Your task to perform on an android device: Show the shopping cart on amazon.com. Add bose soundlink to the cart on amazon.com, then select checkout. Image 0: 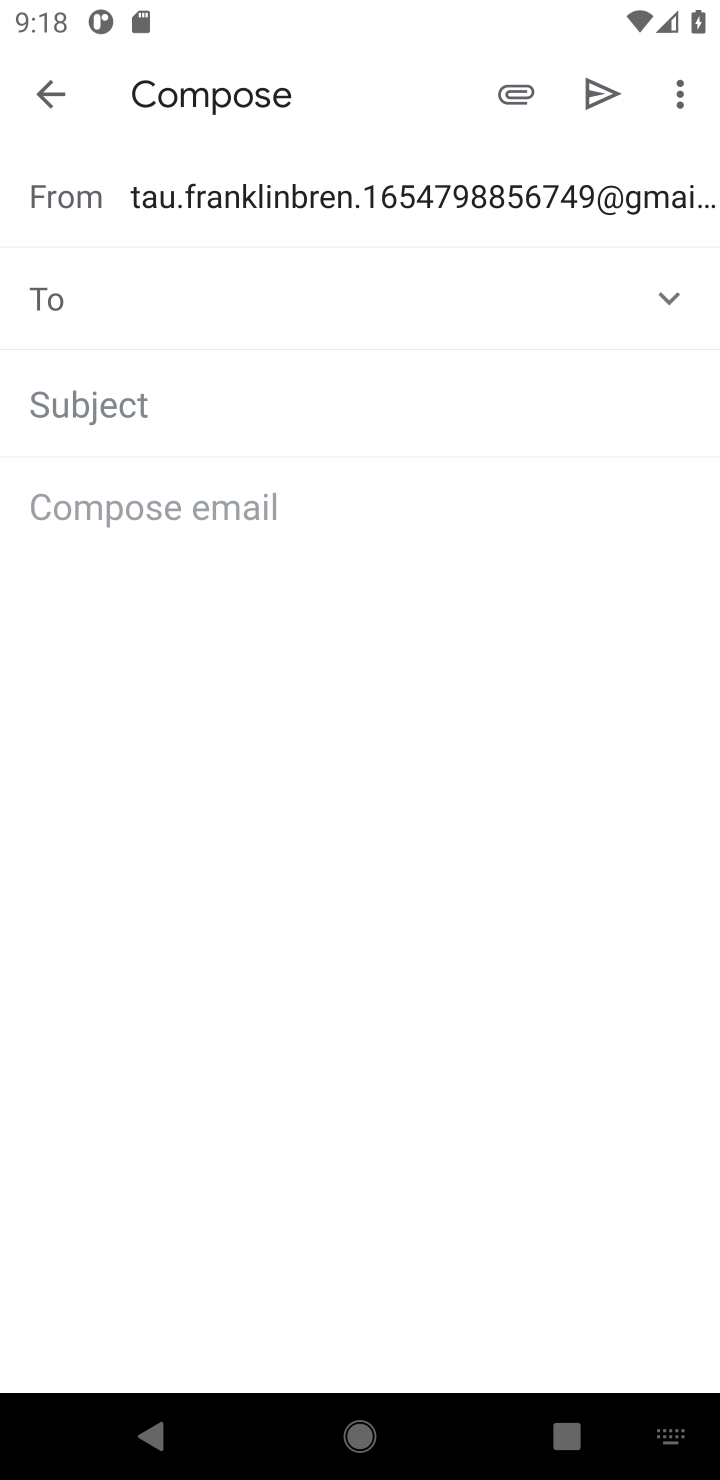
Step 0: press home button
Your task to perform on an android device: Show the shopping cart on amazon.com. Add bose soundlink to the cart on amazon.com, then select checkout. Image 1: 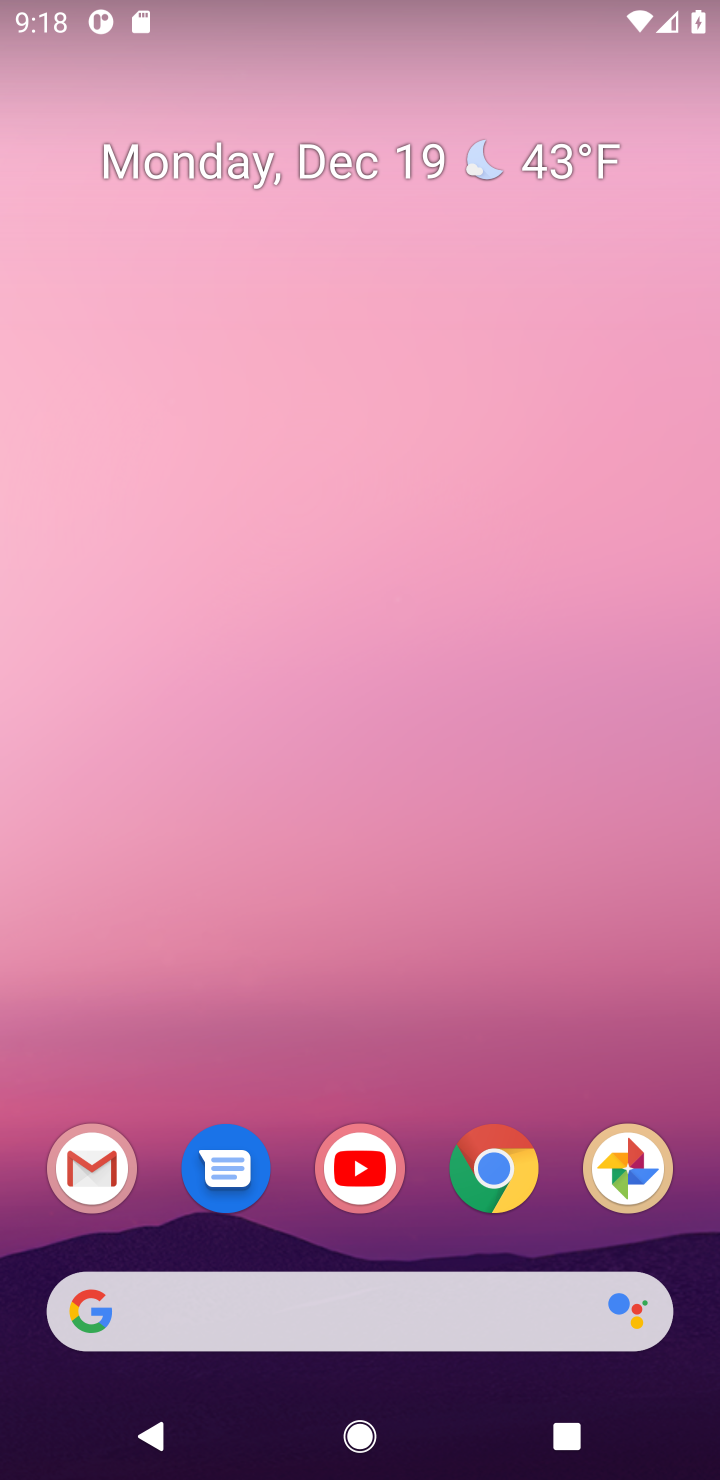
Step 1: click (499, 1182)
Your task to perform on an android device: Show the shopping cart on amazon.com. Add bose soundlink to the cart on amazon.com, then select checkout. Image 2: 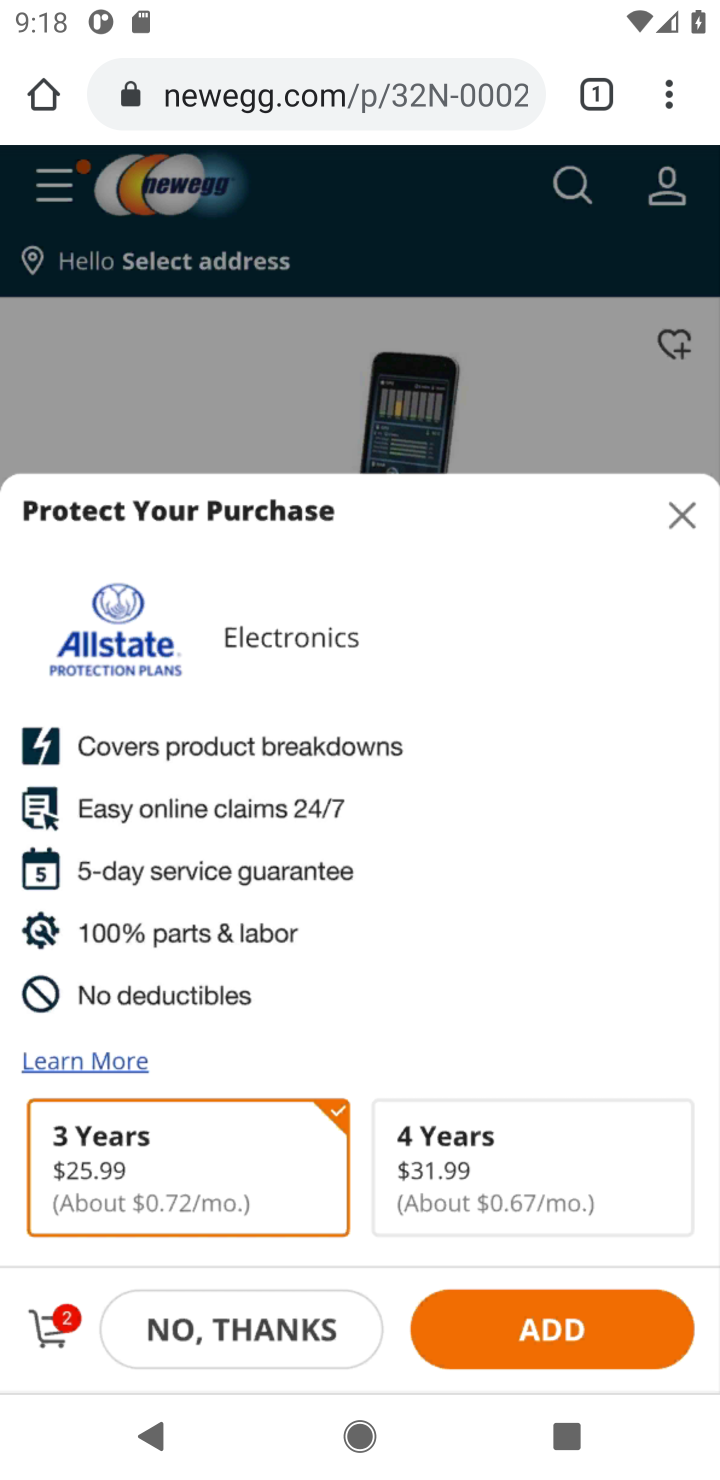
Step 2: click (257, 112)
Your task to perform on an android device: Show the shopping cart on amazon.com. Add bose soundlink to the cart on amazon.com, then select checkout. Image 3: 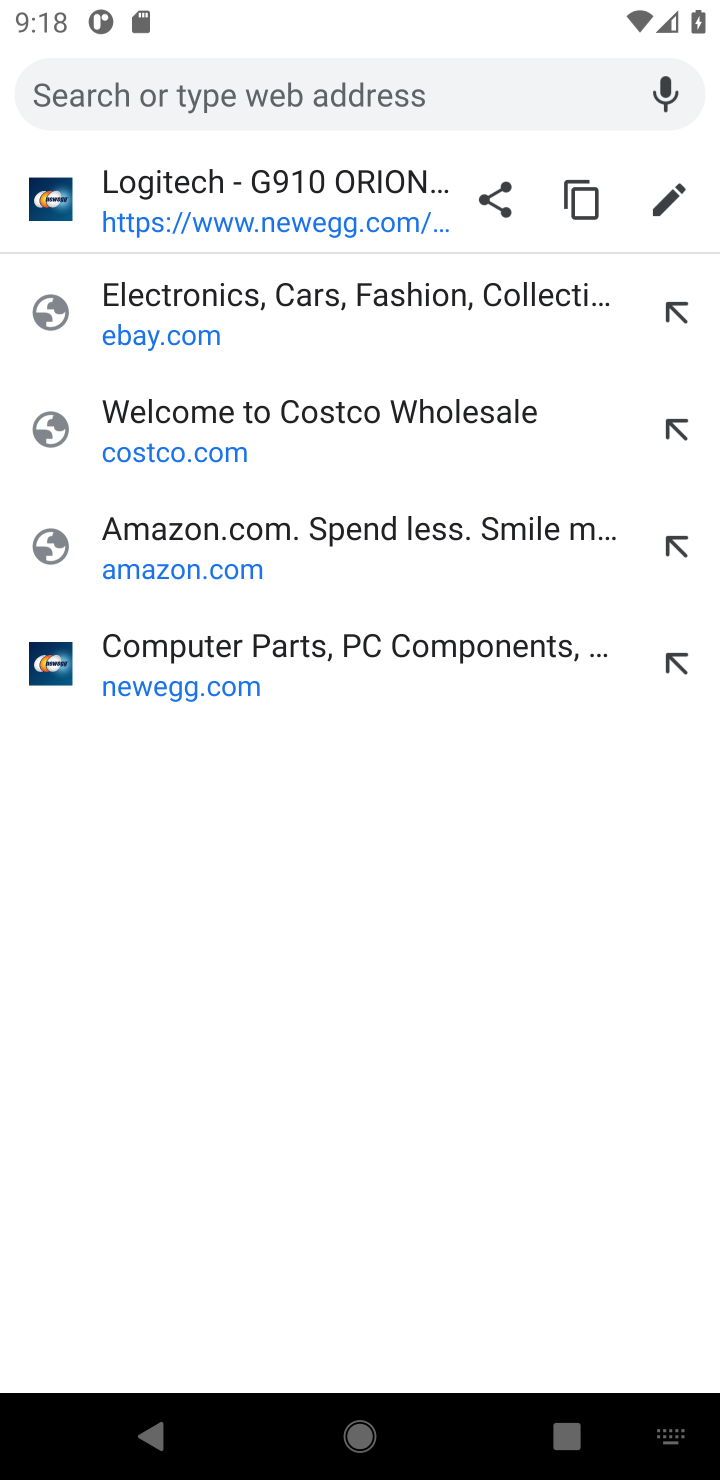
Step 3: click (161, 542)
Your task to perform on an android device: Show the shopping cart on amazon.com. Add bose soundlink to the cart on amazon.com, then select checkout. Image 4: 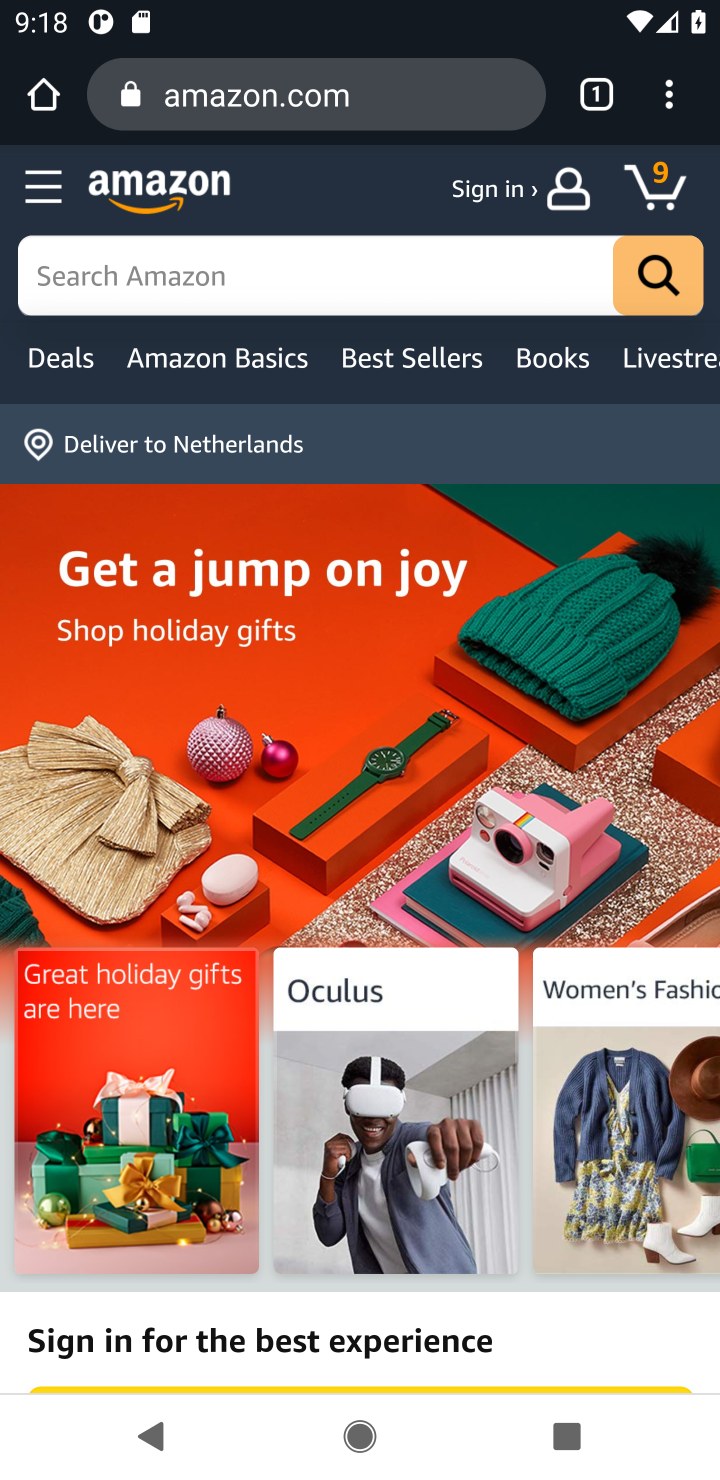
Step 4: click (654, 189)
Your task to perform on an android device: Show the shopping cart on amazon.com. Add bose soundlink to the cart on amazon.com, then select checkout. Image 5: 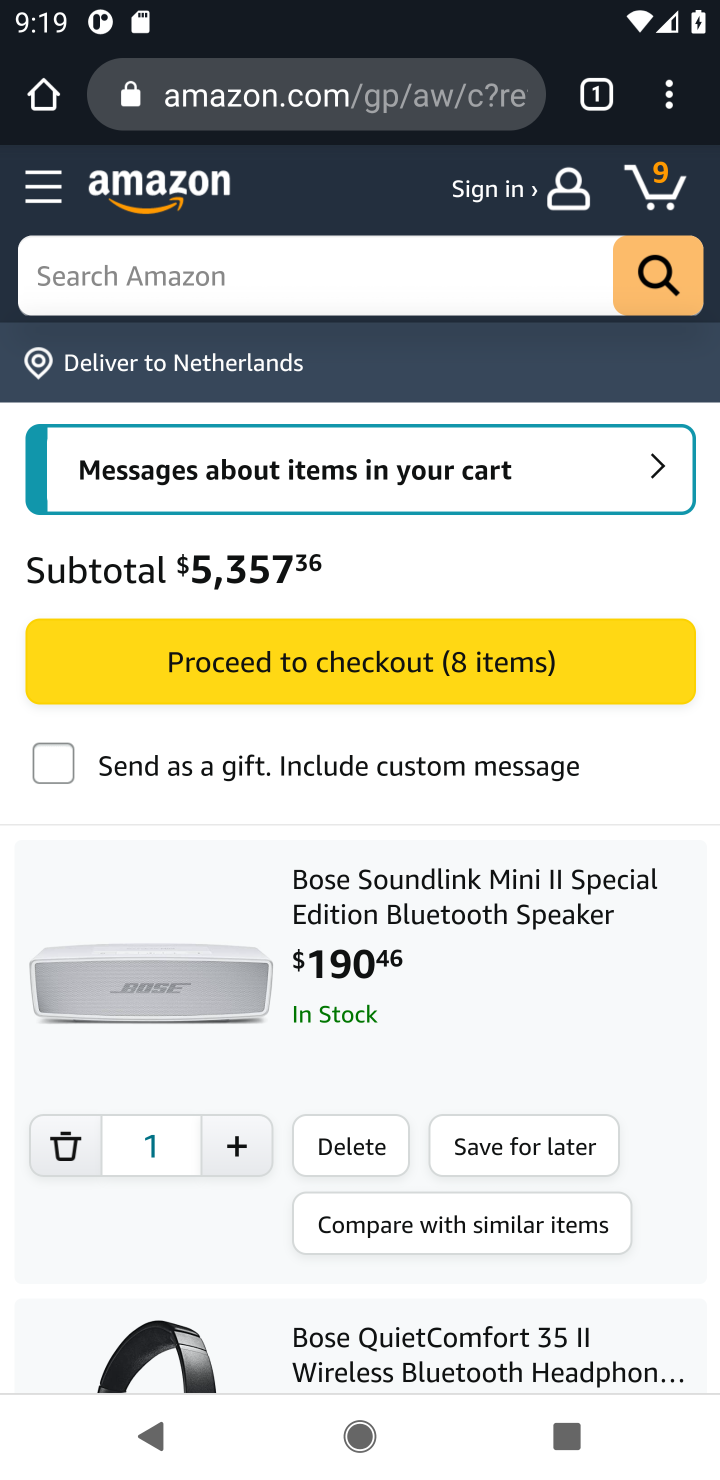
Step 5: click (120, 284)
Your task to perform on an android device: Show the shopping cart on amazon.com. Add bose soundlink to the cart on amazon.com, then select checkout. Image 6: 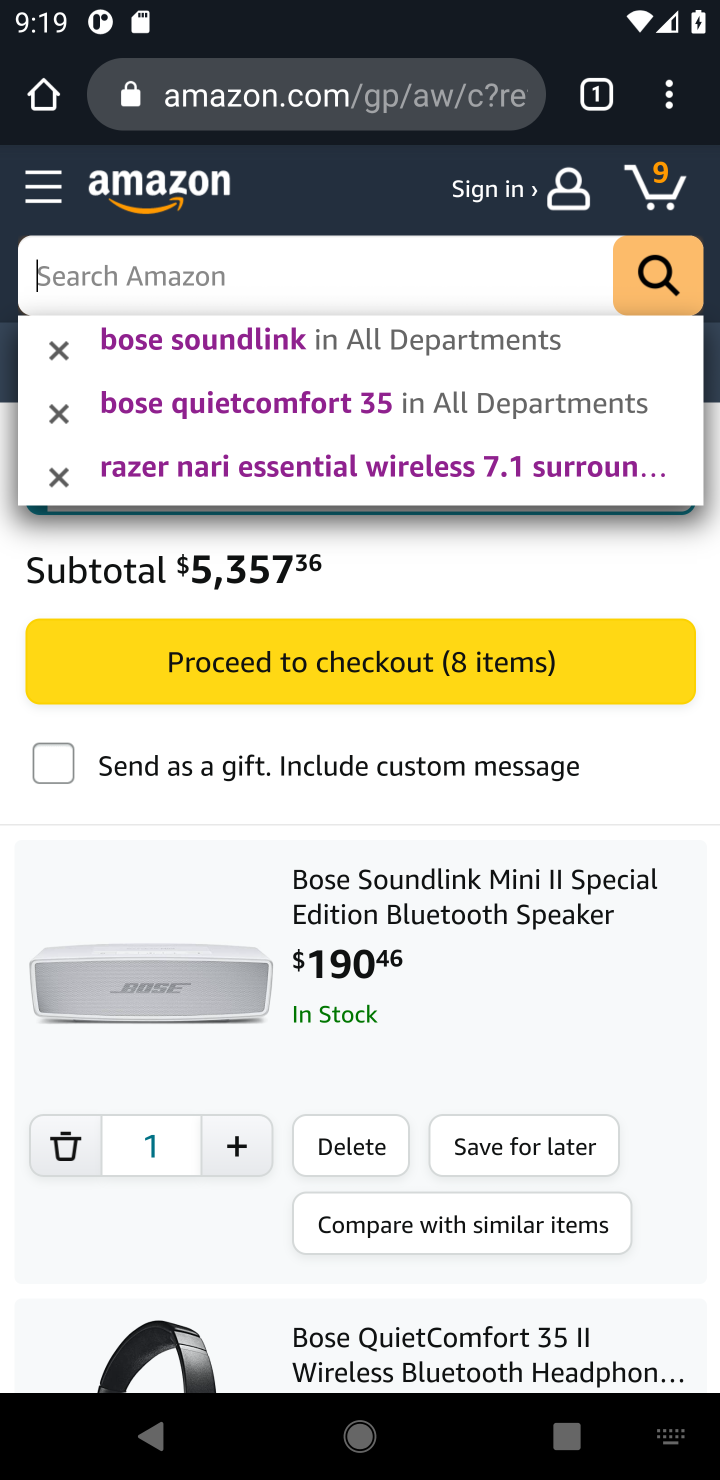
Step 6: type "bose soundlink"
Your task to perform on an android device: Show the shopping cart on amazon.com. Add bose soundlink to the cart on amazon.com, then select checkout. Image 7: 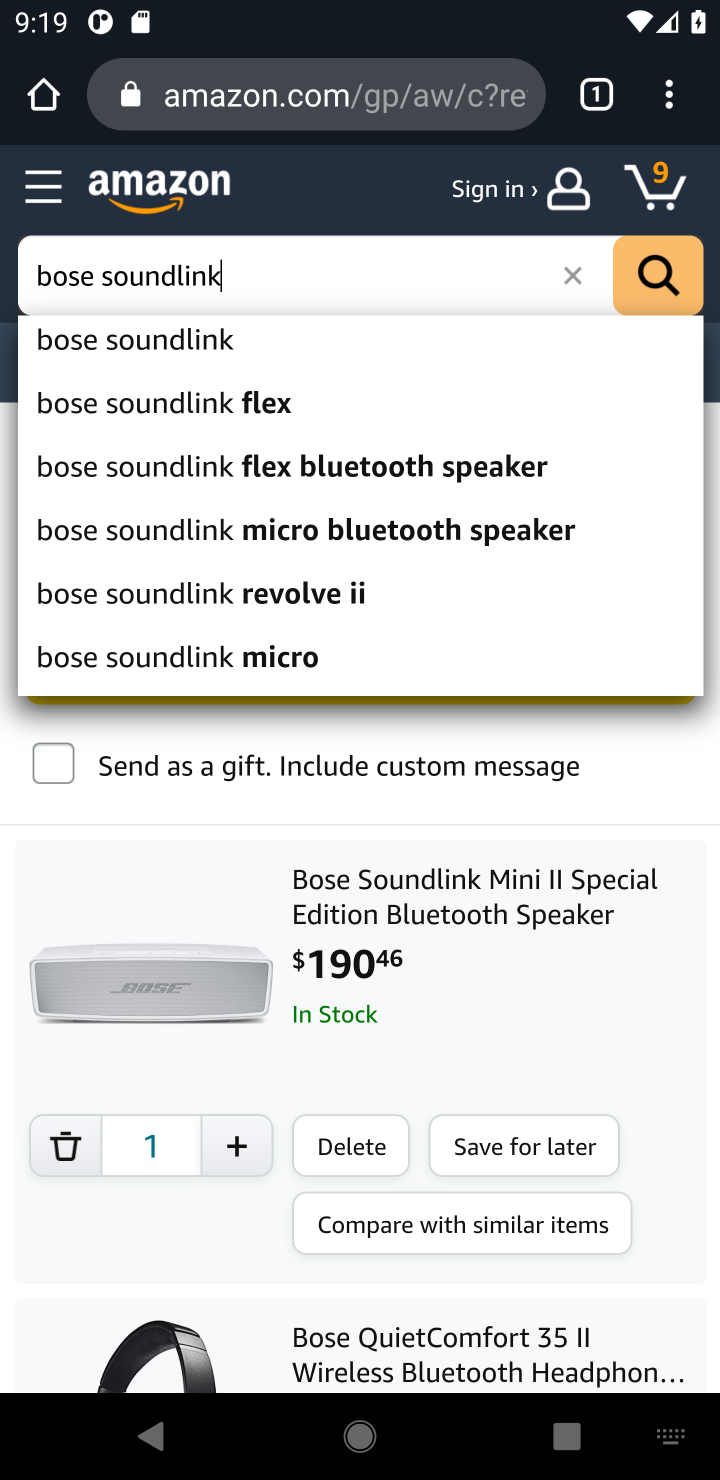
Step 7: click (226, 345)
Your task to perform on an android device: Show the shopping cart on amazon.com. Add bose soundlink to the cart on amazon.com, then select checkout. Image 8: 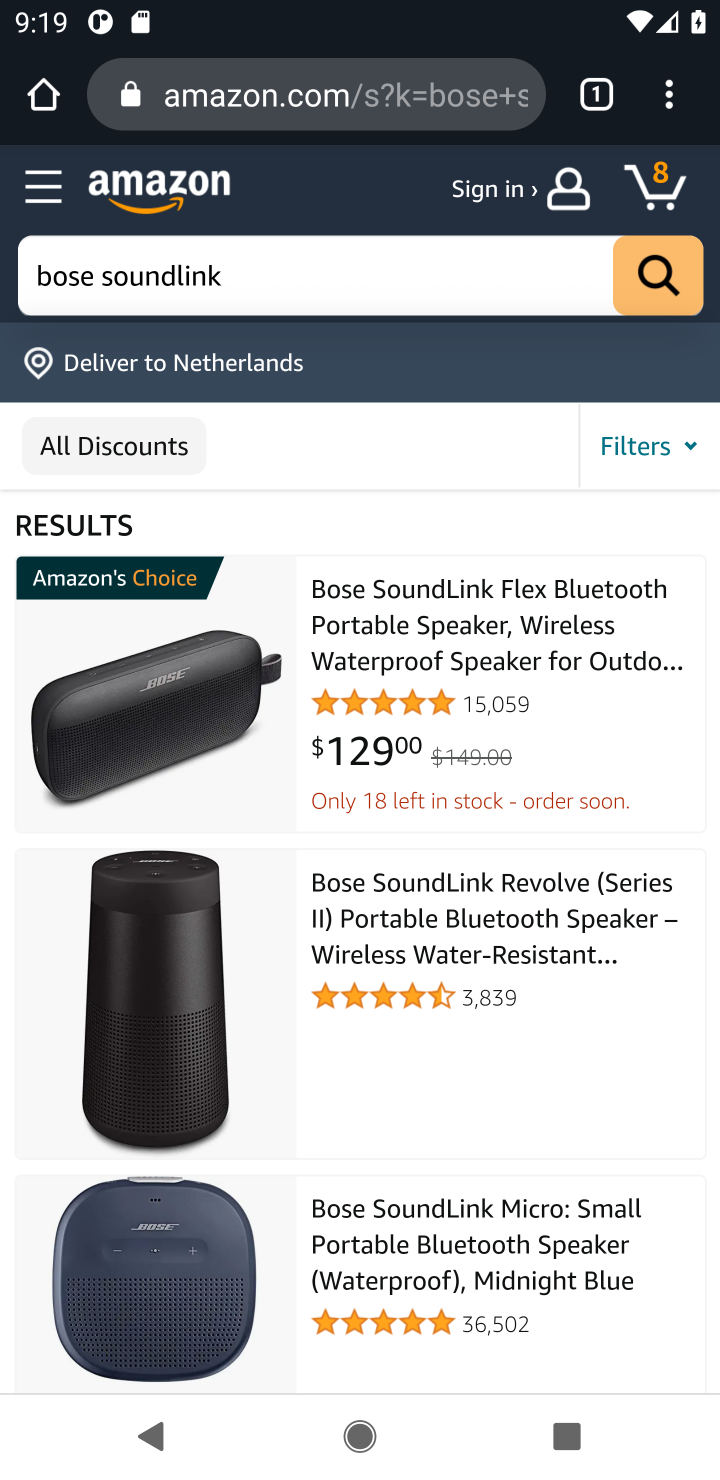
Step 8: drag from (391, 1084) to (381, 742)
Your task to perform on an android device: Show the shopping cart on amazon.com. Add bose soundlink to the cart on amazon.com, then select checkout. Image 9: 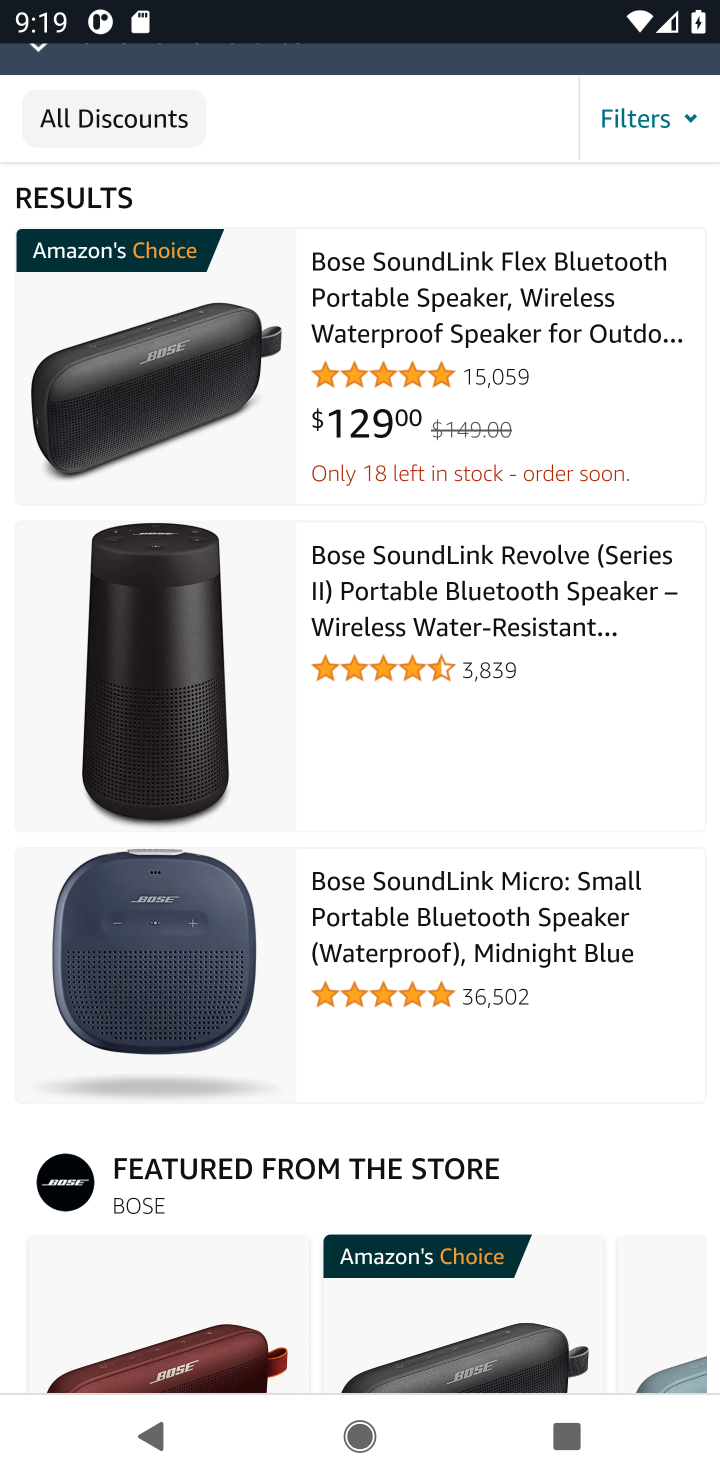
Step 9: drag from (355, 935) to (325, 477)
Your task to perform on an android device: Show the shopping cart on amazon.com. Add bose soundlink to the cart on amazon.com, then select checkout. Image 10: 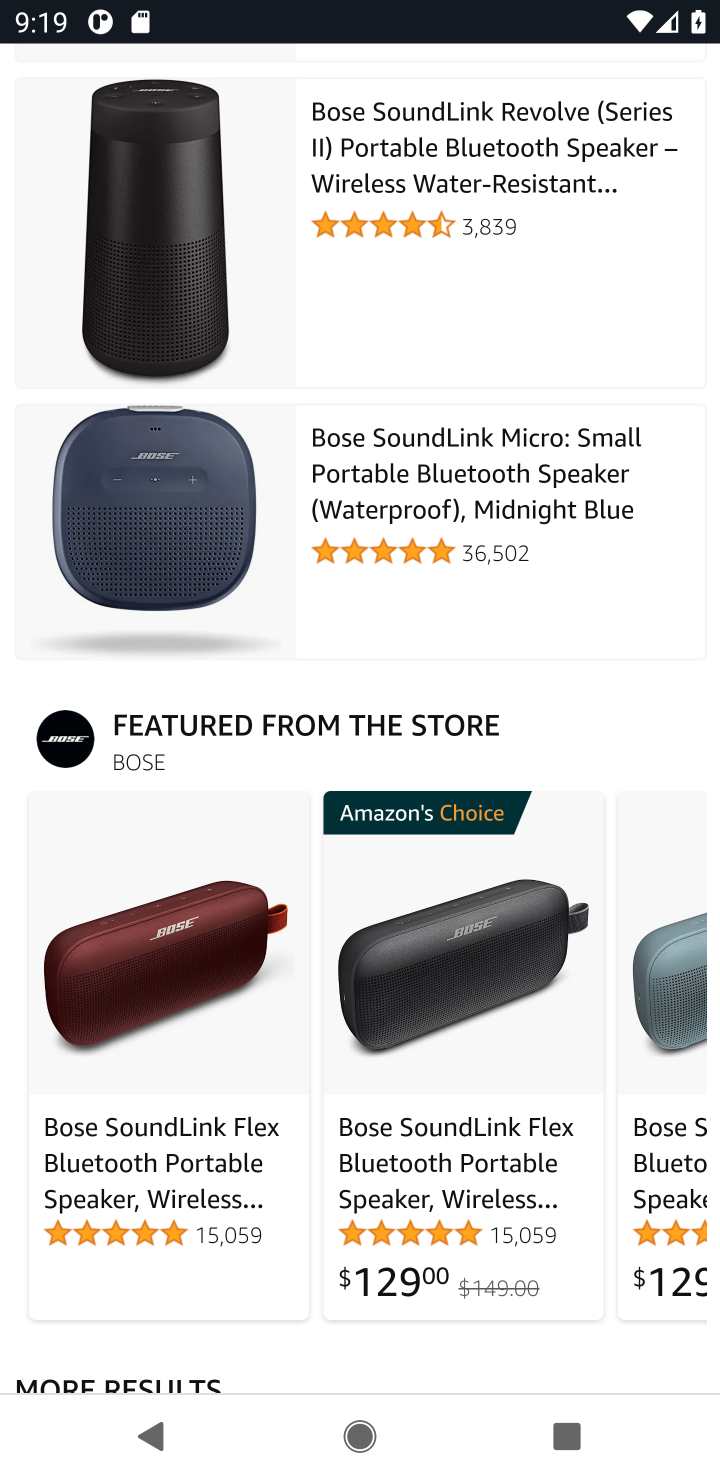
Step 10: drag from (345, 1245) to (315, 542)
Your task to perform on an android device: Show the shopping cart on amazon.com. Add bose soundlink to the cart on amazon.com, then select checkout. Image 11: 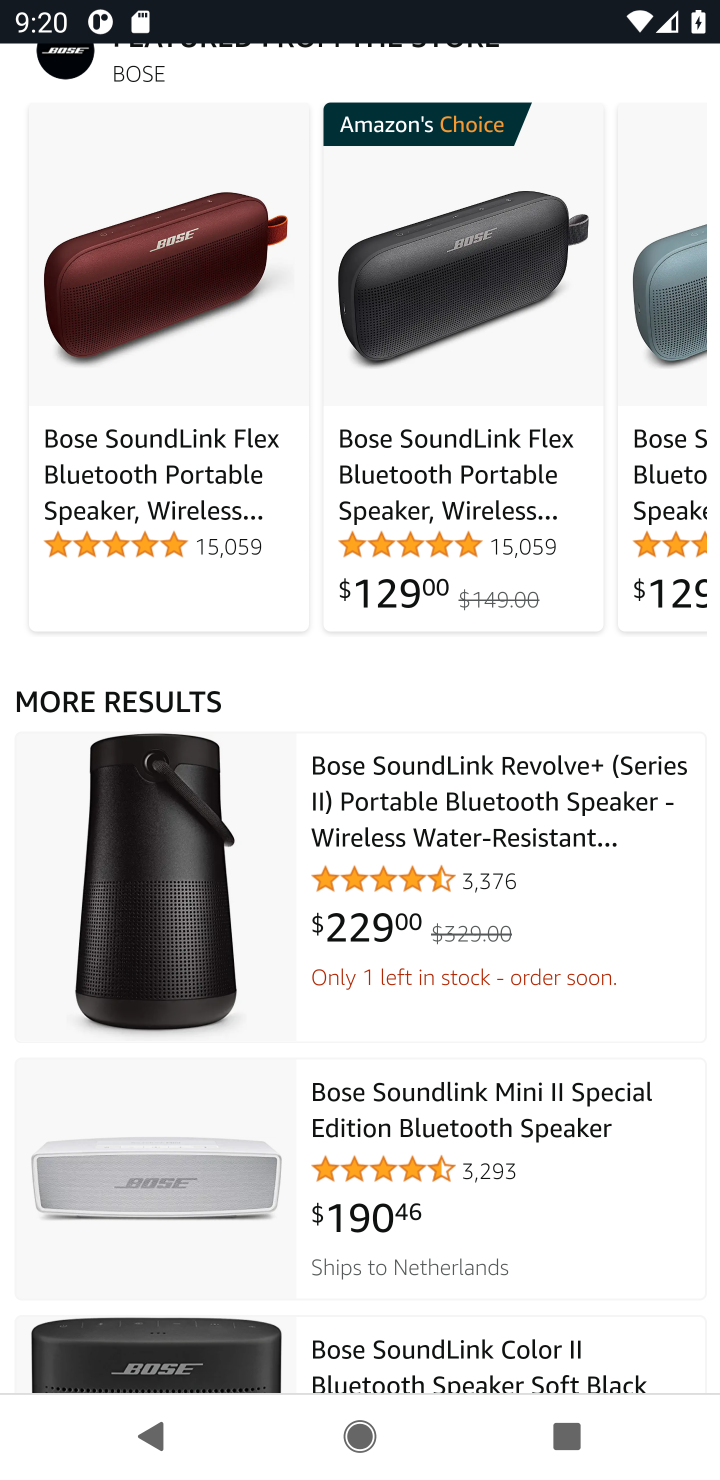
Step 11: drag from (316, 876) to (312, 790)
Your task to perform on an android device: Show the shopping cart on amazon.com. Add bose soundlink to the cart on amazon.com, then select checkout. Image 12: 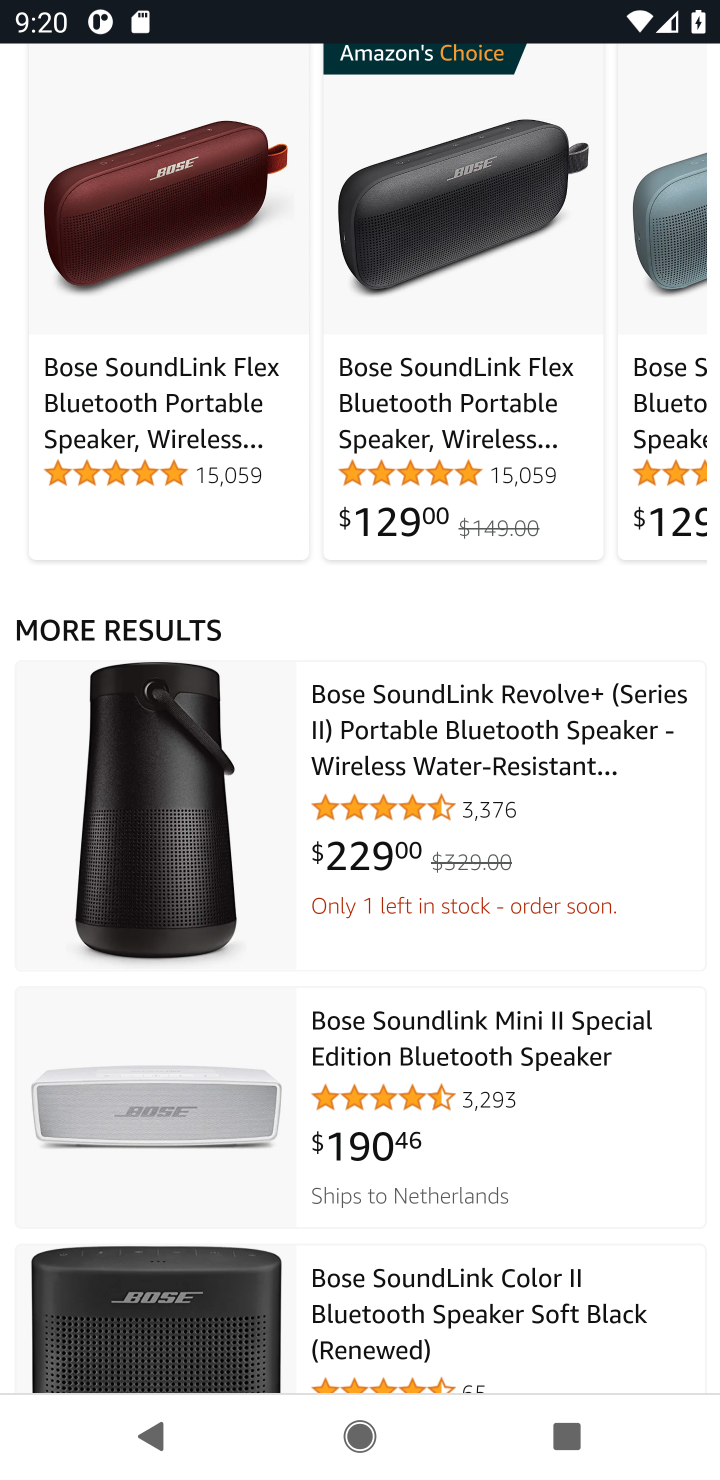
Step 12: click (414, 1044)
Your task to perform on an android device: Show the shopping cart on amazon.com. Add bose soundlink to the cart on amazon.com, then select checkout. Image 13: 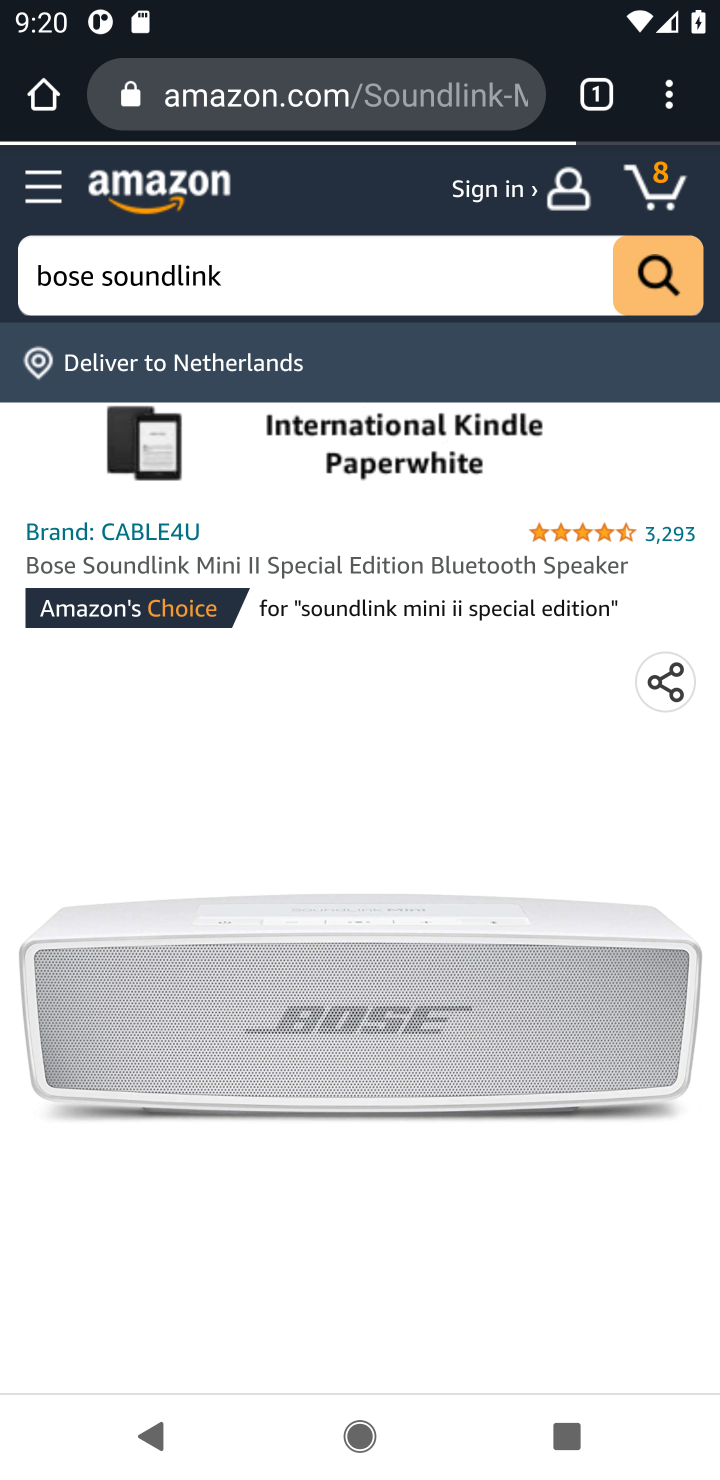
Step 13: drag from (379, 1070) to (318, 559)
Your task to perform on an android device: Show the shopping cart on amazon.com. Add bose soundlink to the cart on amazon.com, then select checkout. Image 14: 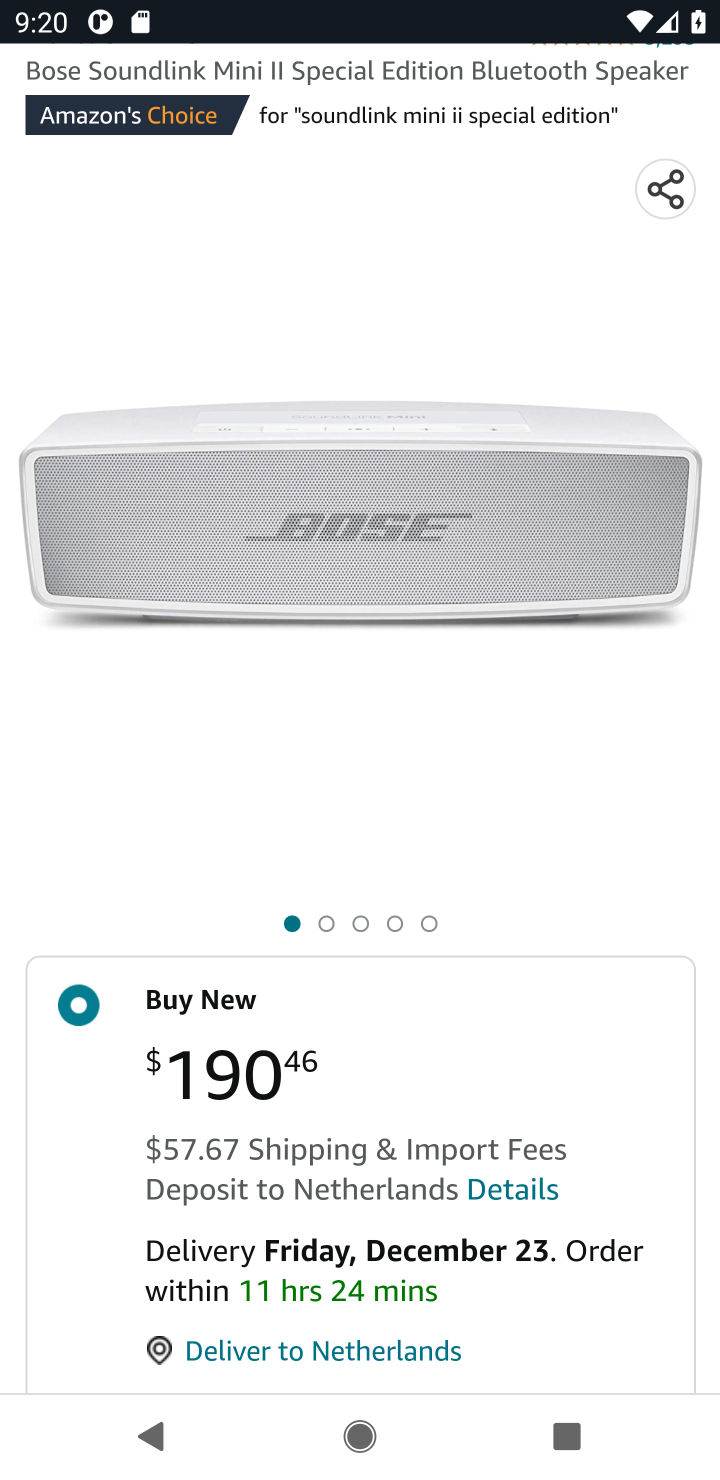
Step 14: drag from (364, 1109) to (345, 571)
Your task to perform on an android device: Show the shopping cart on amazon.com. Add bose soundlink to the cart on amazon.com, then select checkout. Image 15: 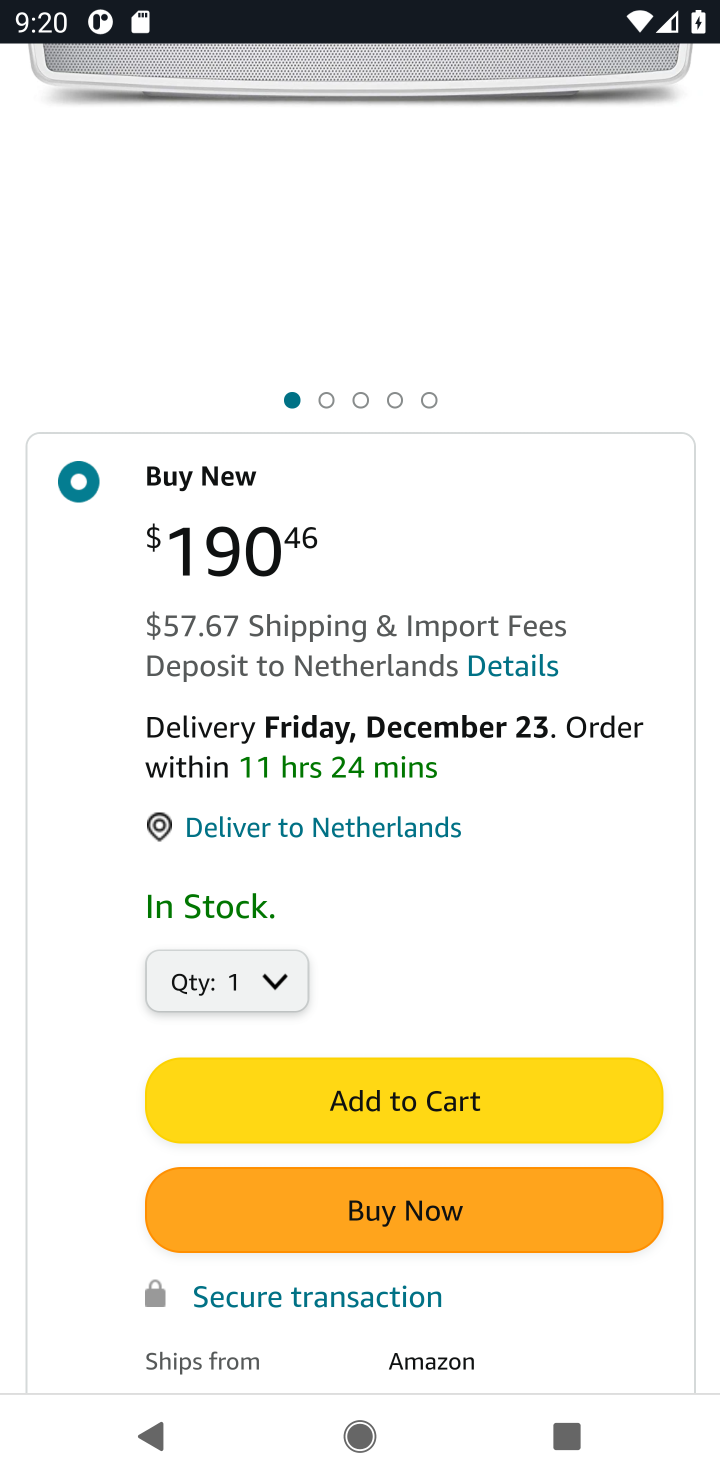
Step 15: click (414, 1115)
Your task to perform on an android device: Show the shopping cart on amazon.com. Add bose soundlink to the cart on amazon.com, then select checkout. Image 16: 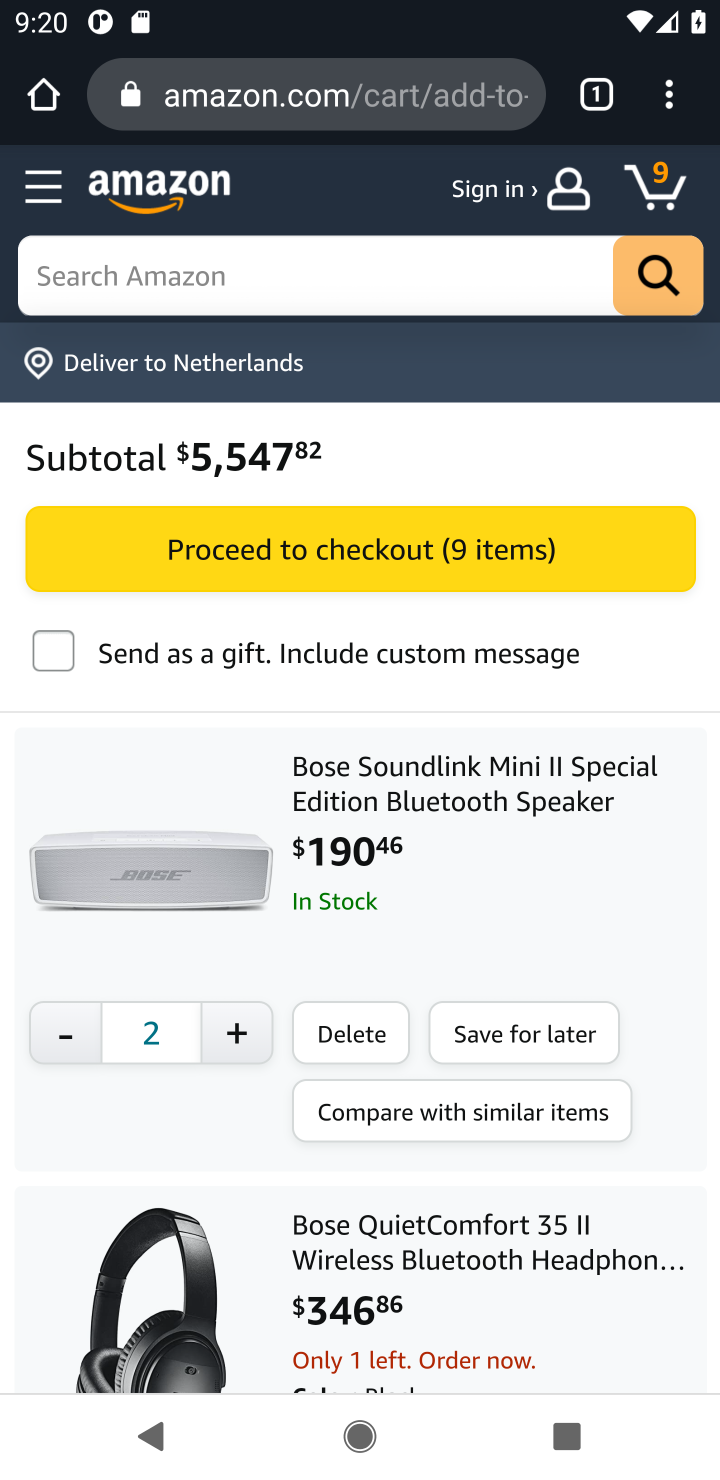
Step 16: click (317, 559)
Your task to perform on an android device: Show the shopping cart on amazon.com. Add bose soundlink to the cart on amazon.com, then select checkout. Image 17: 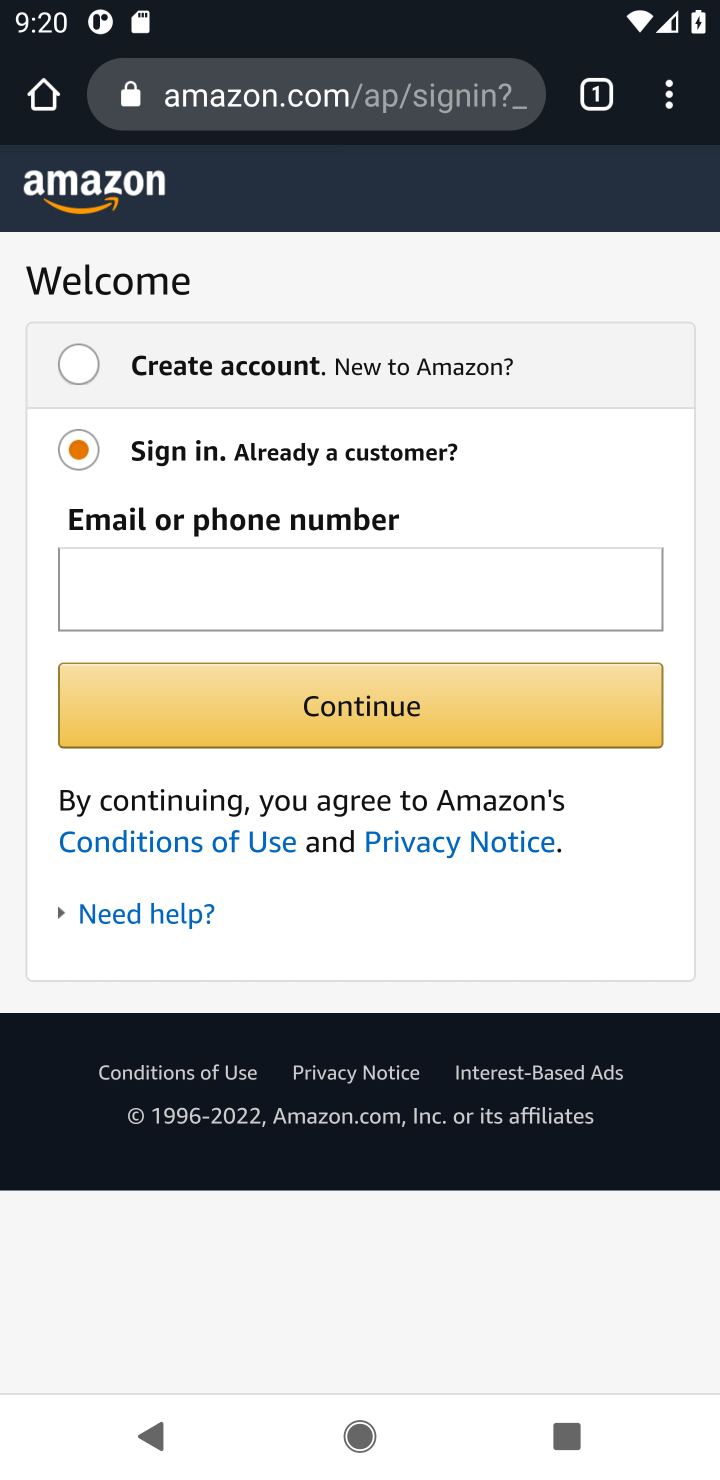
Step 17: task complete